Your task to perform on an android device: refresh tabs in the chrome app Image 0: 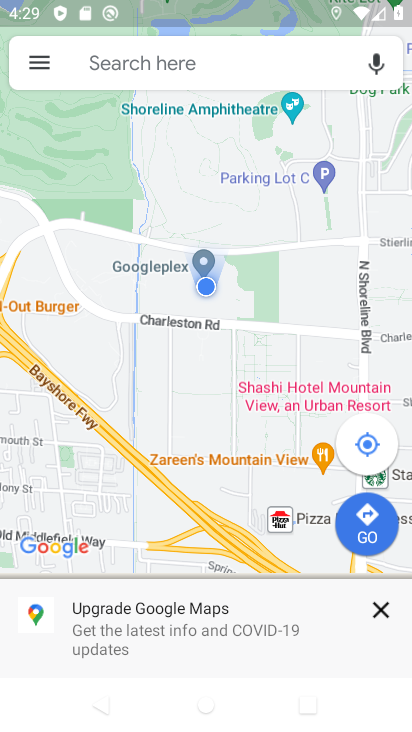
Step 0: press home button
Your task to perform on an android device: refresh tabs in the chrome app Image 1: 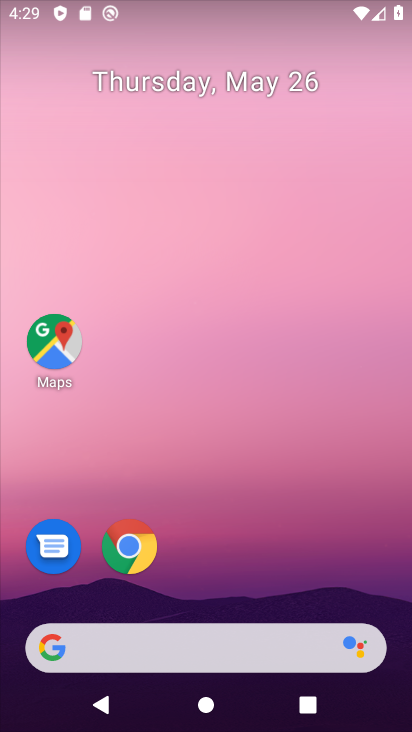
Step 1: click (138, 549)
Your task to perform on an android device: refresh tabs in the chrome app Image 2: 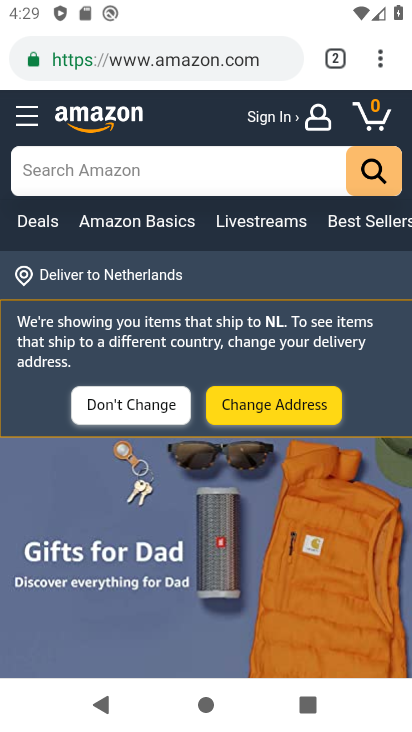
Step 2: click (395, 44)
Your task to perform on an android device: refresh tabs in the chrome app Image 3: 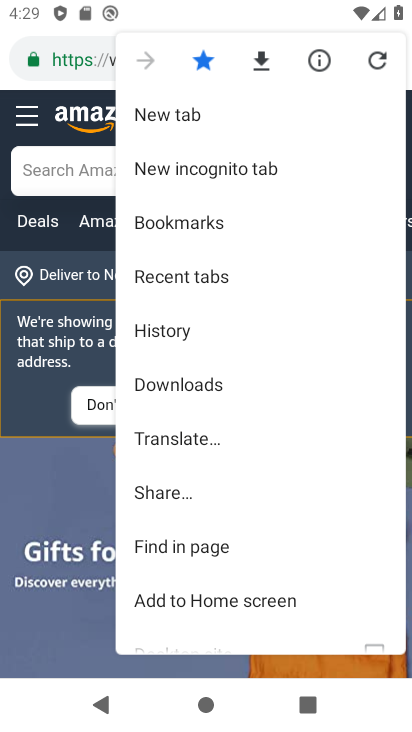
Step 3: click (390, 56)
Your task to perform on an android device: refresh tabs in the chrome app Image 4: 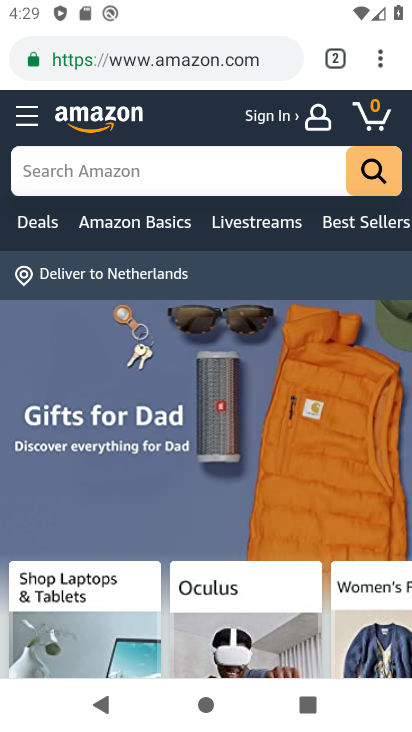
Step 4: task complete